Your task to perform on an android device: Open privacy settings Image 0: 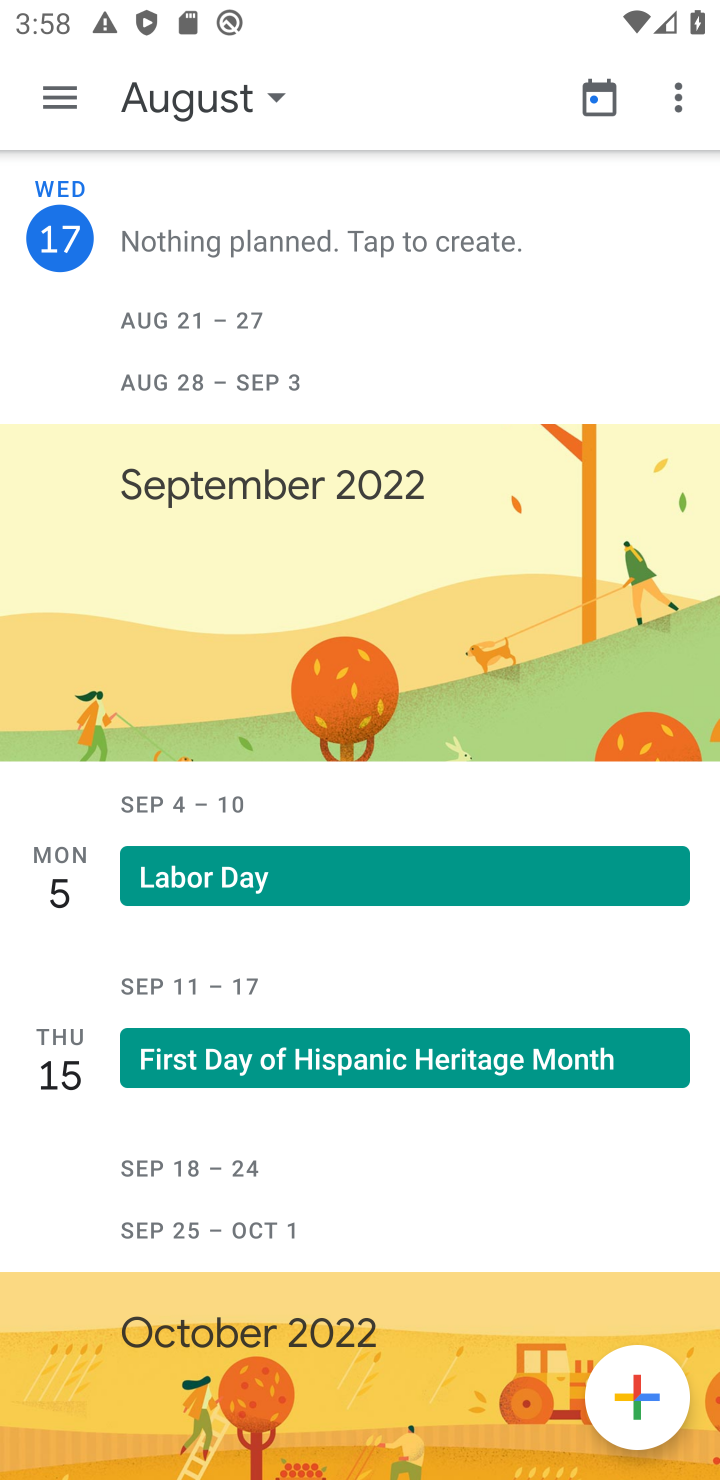
Step 0: press home button
Your task to perform on an android device: Open privacy settings Image 1: 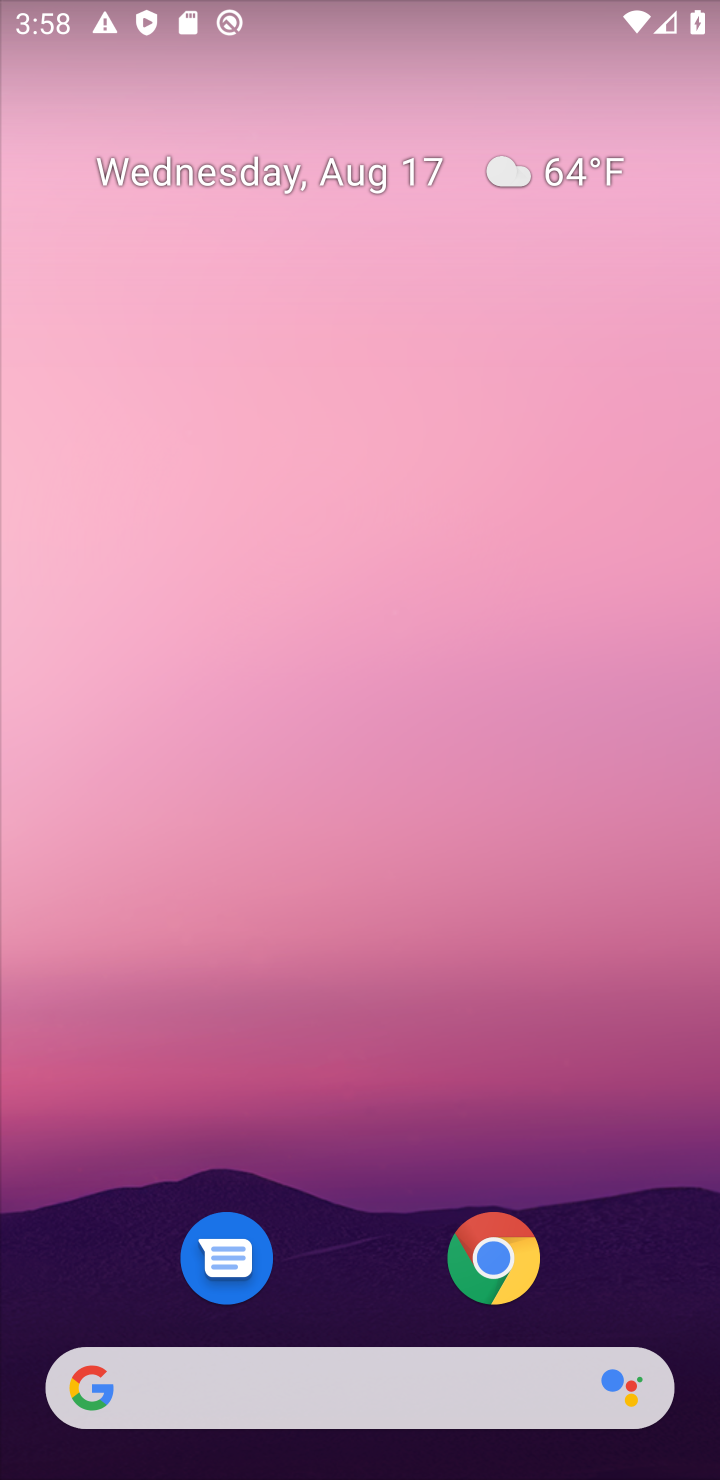
Step 1: drag from (646, 1224) to (483, 427)
Your task to perform on an android device: Open privacy settings Image 2: 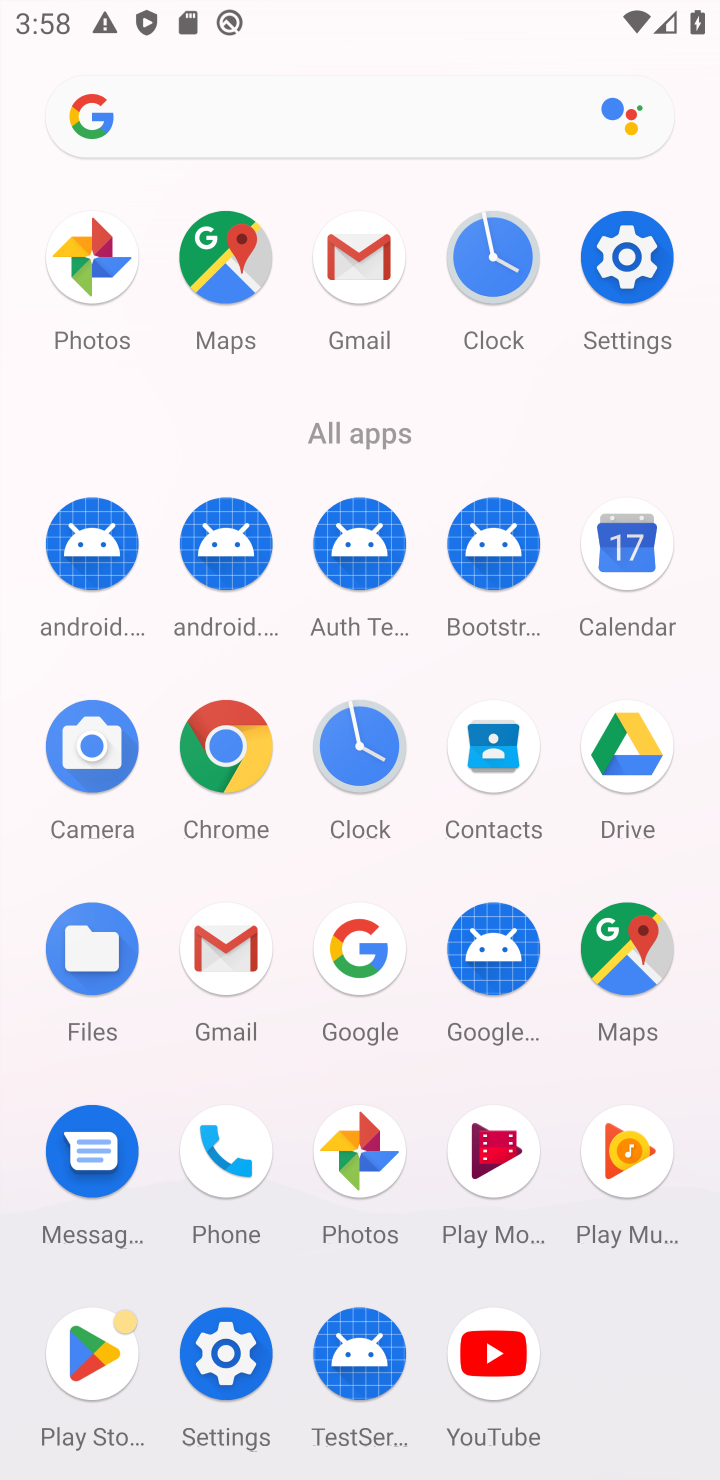
Step 2: click (238, 1322)
Your task to perform on an android device: Open privacy settings Image 3: 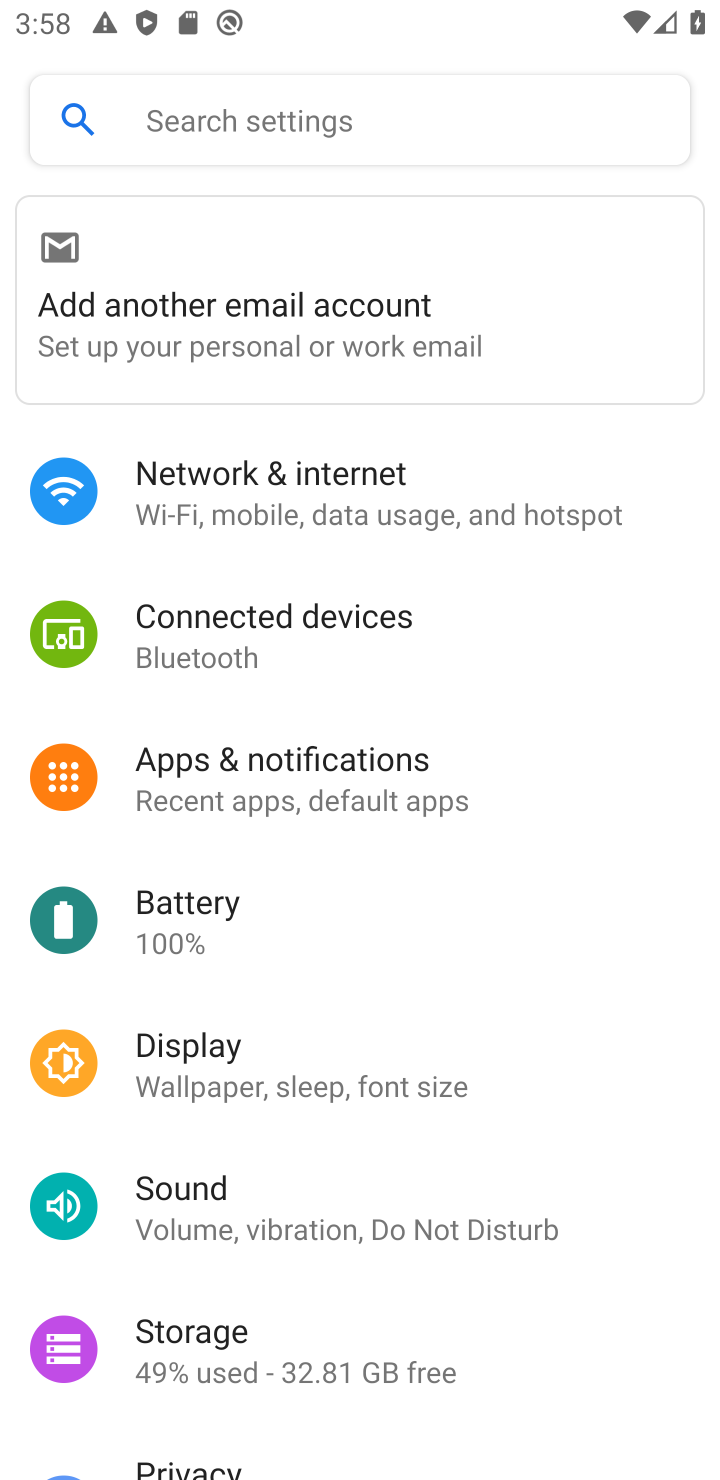
Step 3: click (220, 1455)
Your task to perform on an android device: Open privacy settings Image 4: 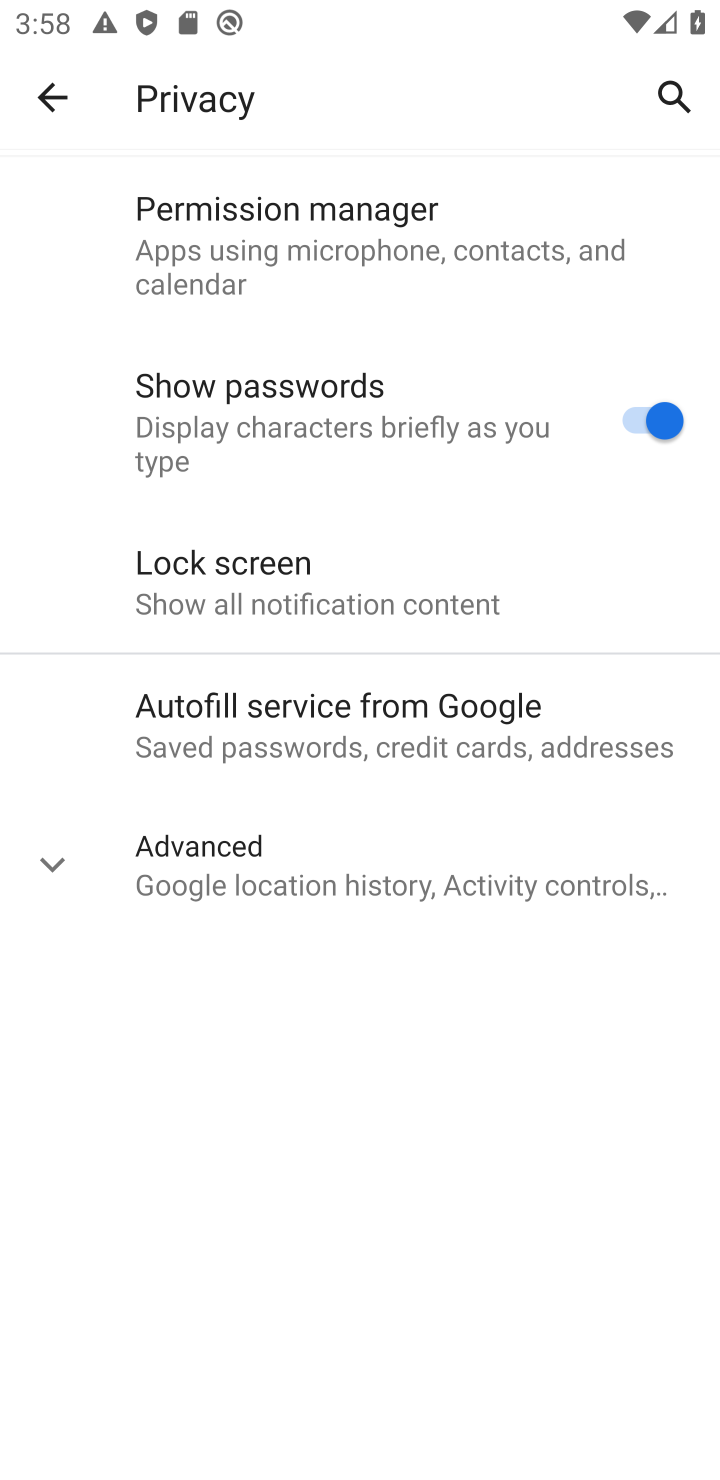
Step 4: task complete